Your task to perform on an android device: Open calendar and show me the first week of next month Image 0: 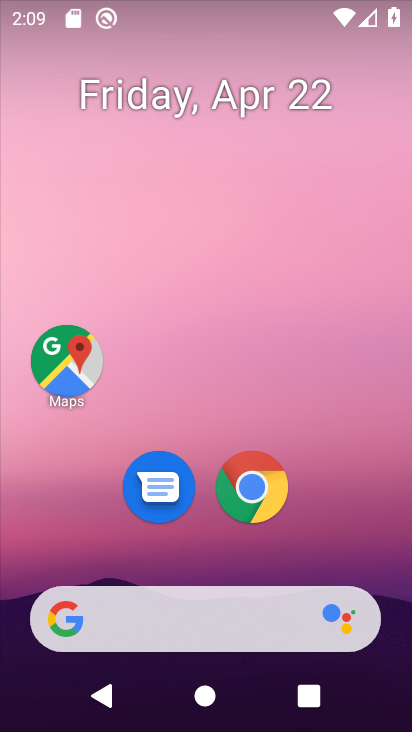
Step 0: drag from (241, 456) to (241, 205)
Your task to perform on an android device: Open calendar and show me the first week of next month Image 1: 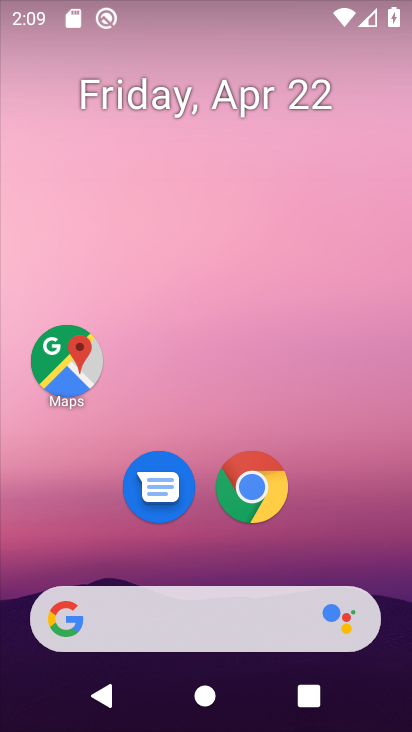
Step 1: drag from (212, 525) to (235, 181)
Your task to perform on an android device: Open calendar and show me the first week of next month Image 2: 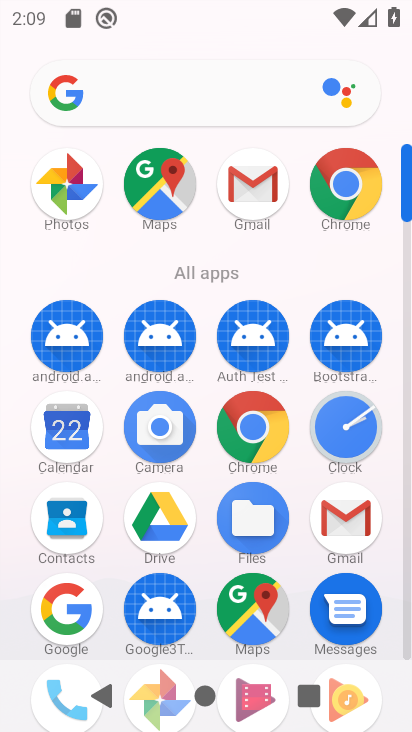
Step 2: click (70, 448)
Your task to perform on an android device: Open calendar and show me the first week of next month Image 3: 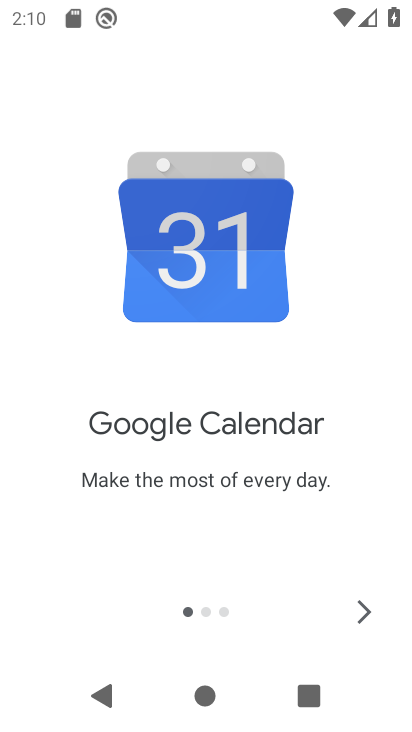
Step 3: click (369, 613)
Your task to perform on an android device: Open calendar and show me the first week of next month Image 4: 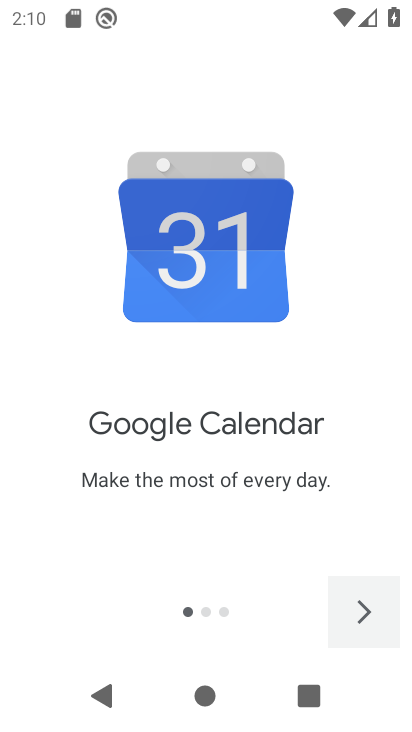
Step 4: click (374, 613)
Your task to perform on an android device: Open calendar and show me the first week of next month Image 5: 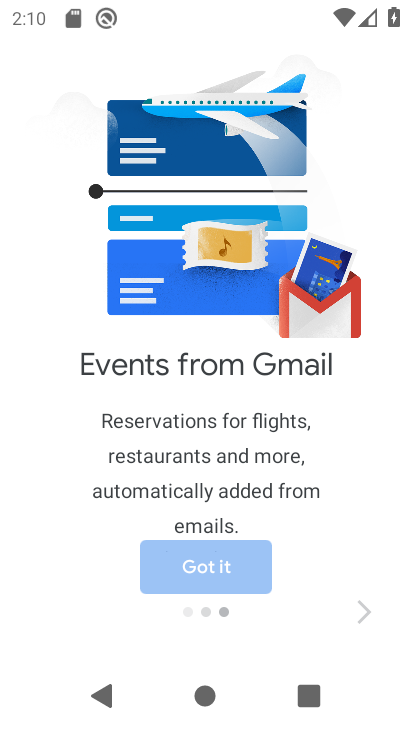
Step 5: click (374, 613)
Your task to perform on an android device: Open calendar and show me the first week of next month Image 6: 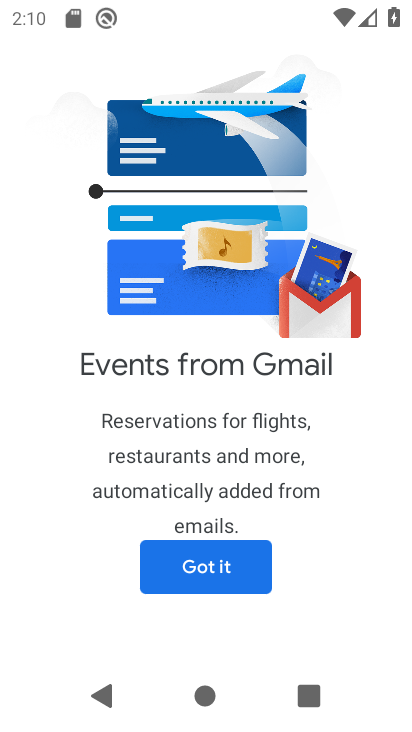
Step 6: click (216, 579)
Your task to perform on an android device: Open calendar and show me the first week of next month Image 7: 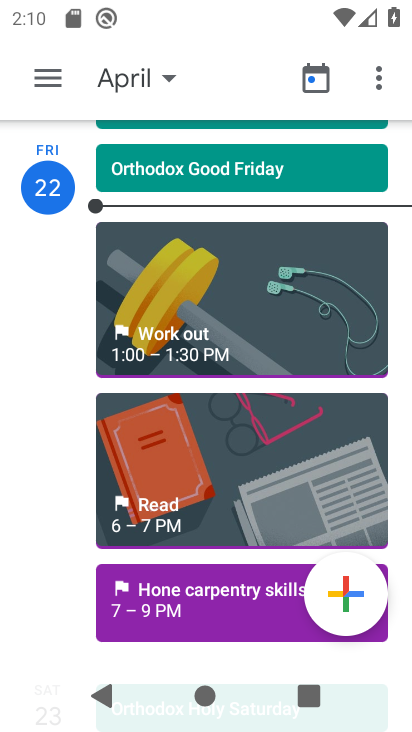
Step 7: click (148, 81)
Your task to perform on an android device: Open calendar and show me the first week of next month Image 8: 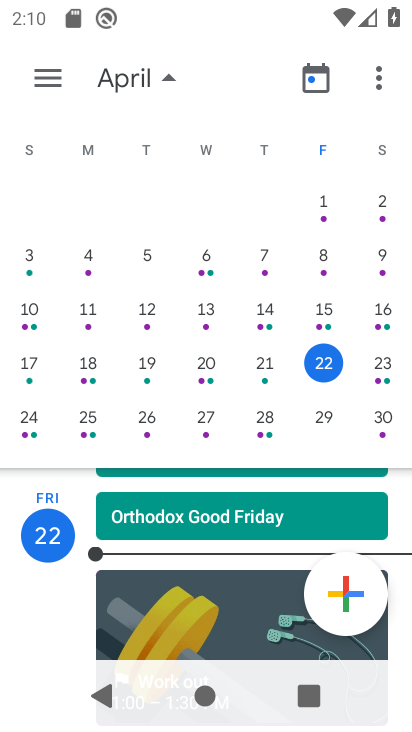
Step 8: drag from (353, 320) to (2, 364)
Your task to perform on an android device: Open calendar and show me the first week of next month Image 9: 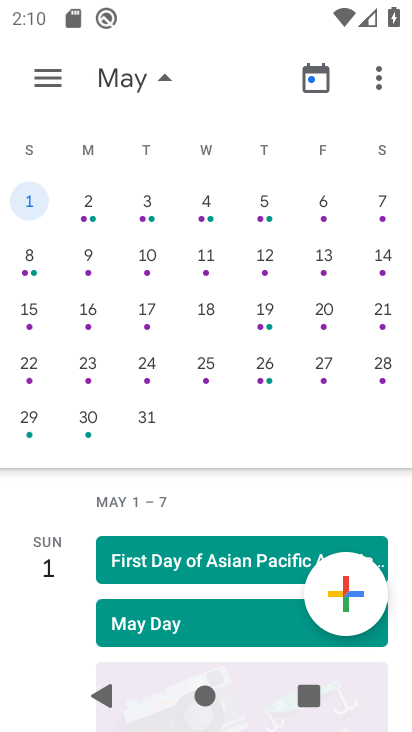
Step 9: click (23, 203)
Your task to perform on an android device: Open calendar and show me the first week of next month Image 10: 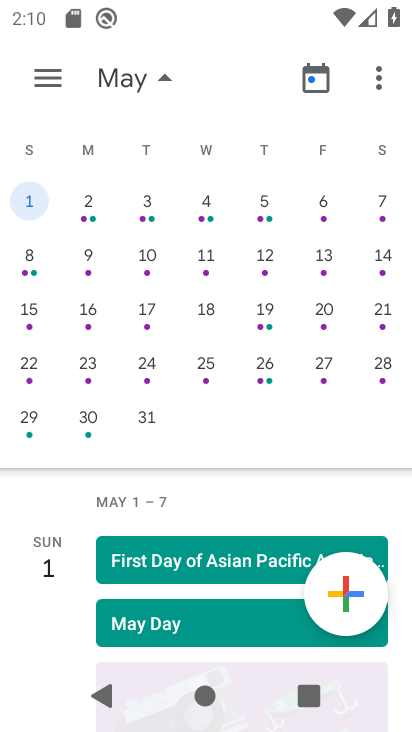
Step 10: click (32, 203)
Your task to perform on an android device: Open calendar and show me the first week of next month Image 11: 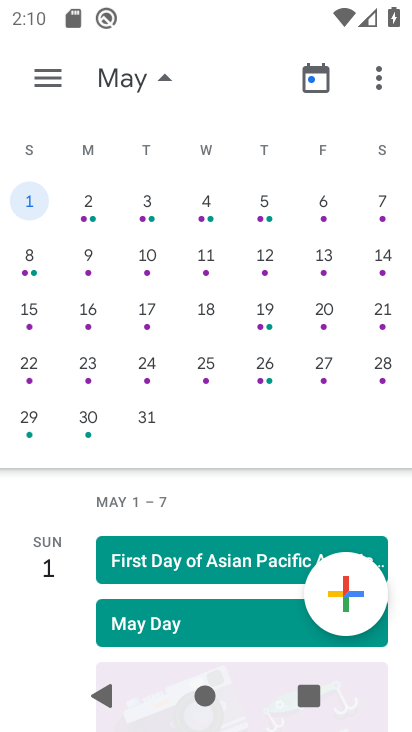
Step 11: click (160, 83)
Your task to perform on an android device: Open calendar and show me the first week of next month Image 12: 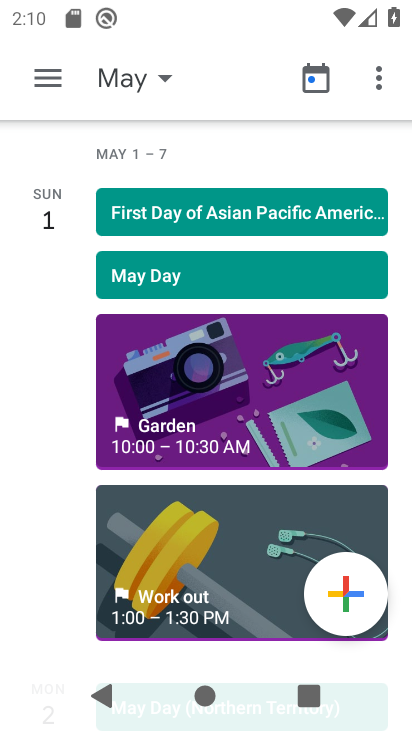
Step 12: task complete